Your task to perform on an android device: Open Google Chrome and open the bookmarks view Image 0: 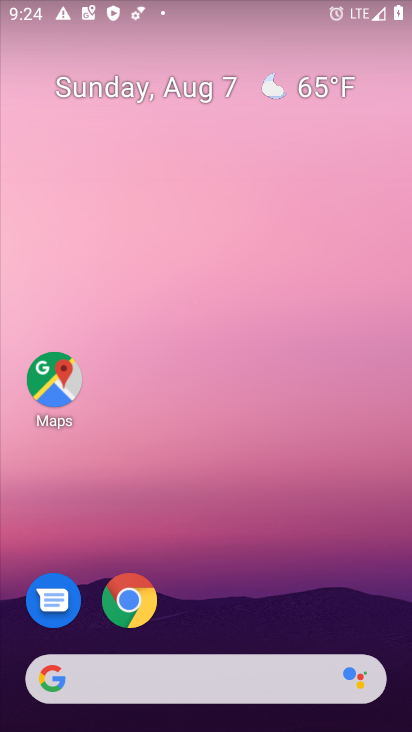
Step 0: click (125, 603)
Your task to perform on an android device: Open Google Chrome and open the bookmarks view Image 1: 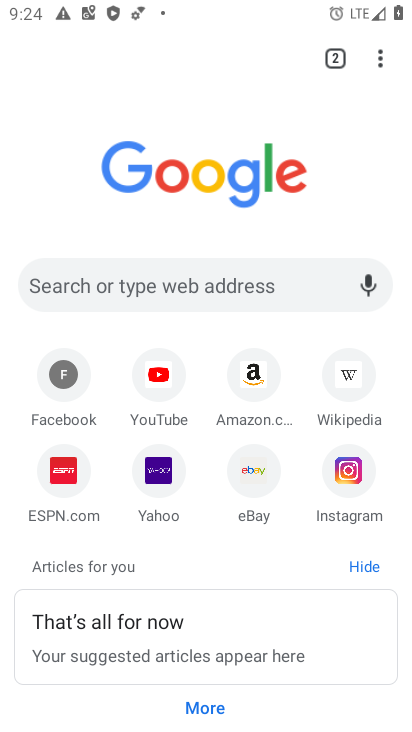
Step 1: click (380, 61)
Your task to perform on an android device: Open Google Chrome and open the bookmarks view Image 2: 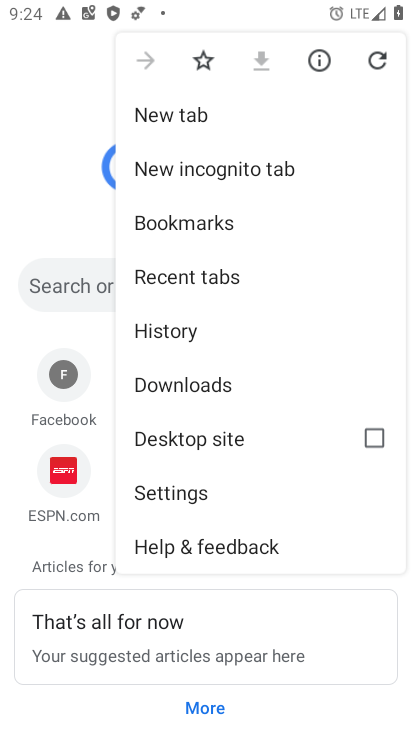
Step 2: click (226, 222)
Your task to perform on an android device: Open Google Chrome and open the bookmarks view Image 3: 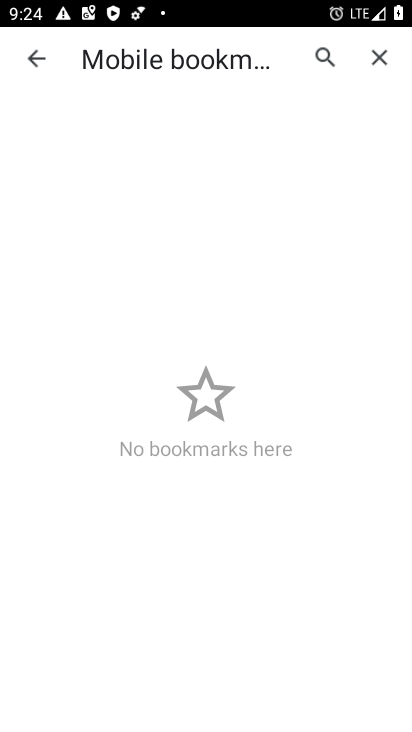
Step 3: task complete